Your task to perform on an android device: Open the calendar and show me this week's events? Image 0: 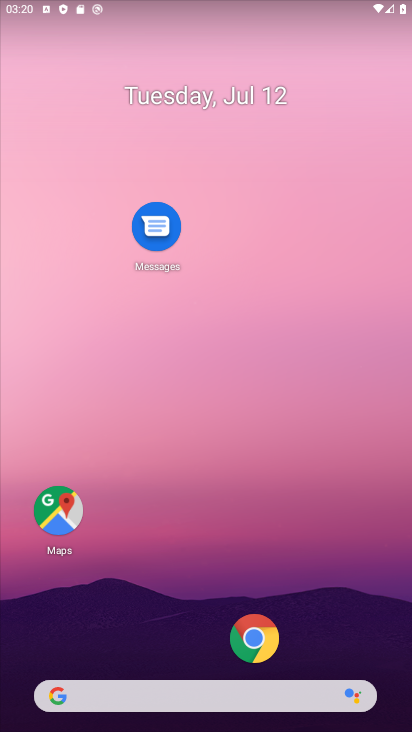
Step 0: click (230, 86)
Your task to perform on an android device: Open the calendar and show me this week's events? Image 1: 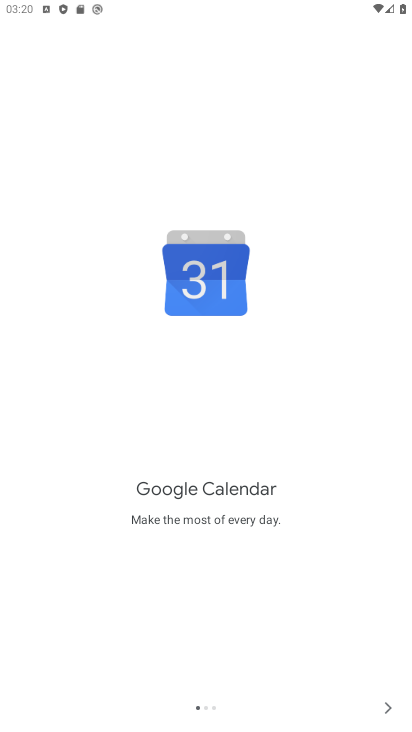
Step 1: click (385, 715)
Your task to perform on an android device: Open the calendar and show me this week's events? Image 2: 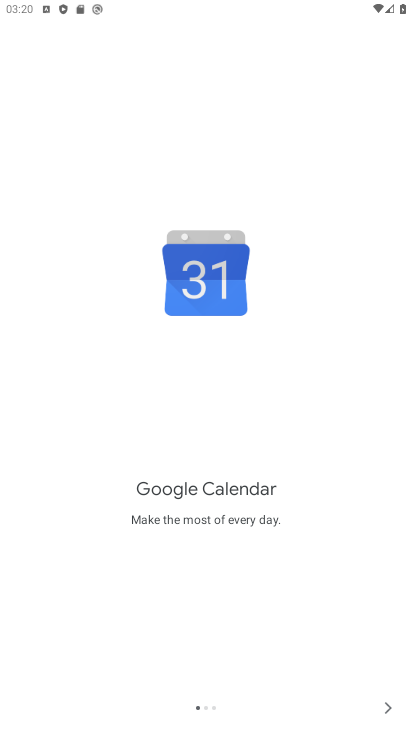
Step 2: click (385, 715)
Your task to perform on an android device: Open the calendar and show me this week's events? Image 3: 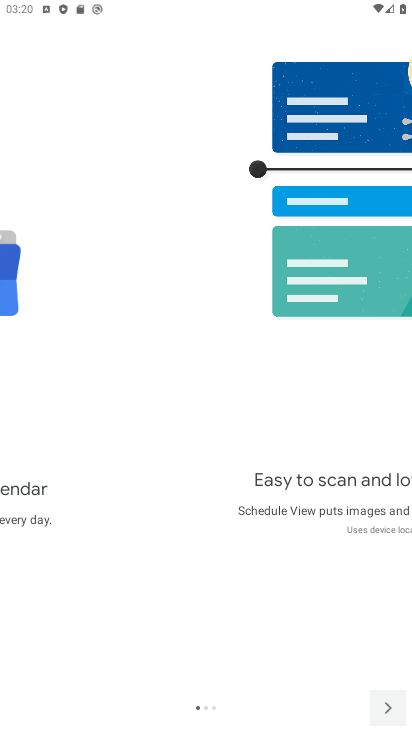
Step 3: click (385, 715)
Your task to perform on an android device: Open the calendar and show me this week's events? Image 4: 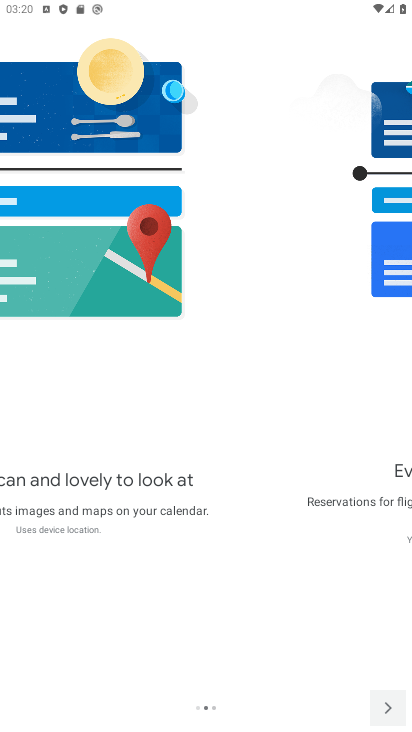
Step 4: click (385, 715)
Your task to perform on an android device: Open the calendar and show me this week's events? Image 5: 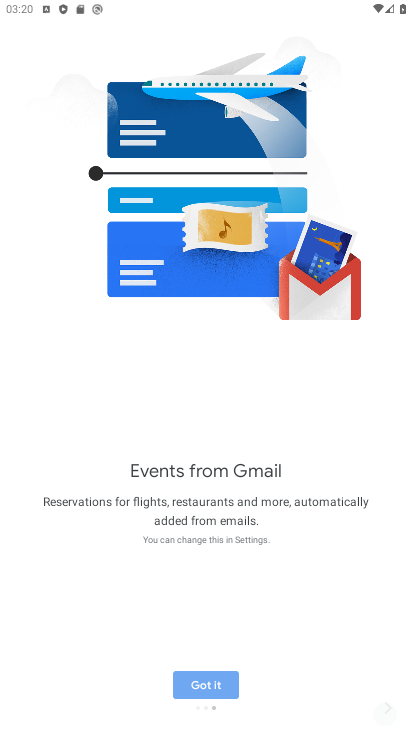
Step 5: click (385, 715)
Your task to perform on an android device: Open the calendar and show me this week's events? Image 6: 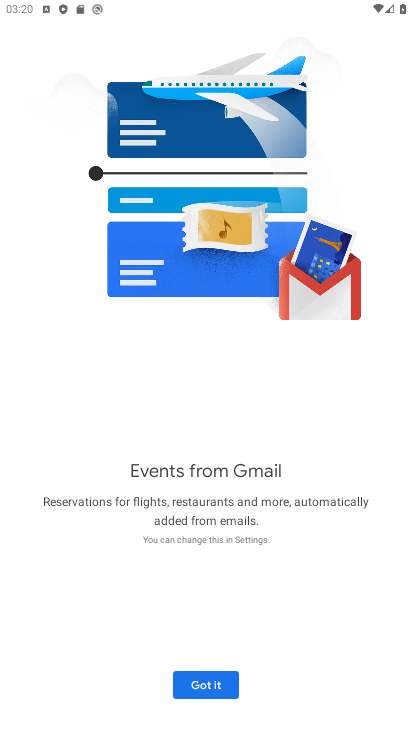
Step 6: click (385, 715)
Your task to perform on an android device: Open the calendar and show me this week's events? Image 7: 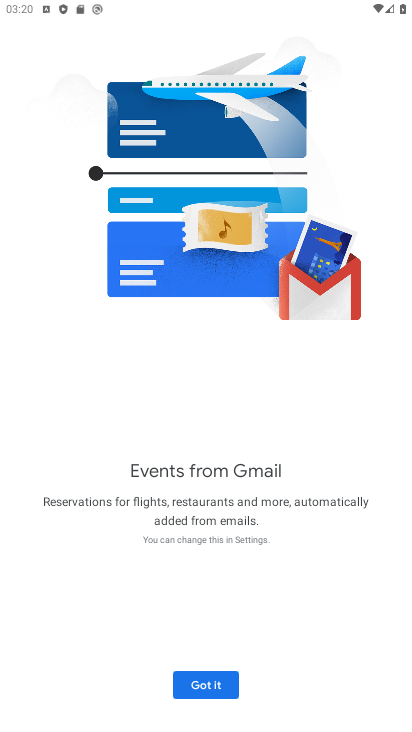
Step 7: click (385, 715)
Your task to perform on an android device: Open the calendar and show me this week's events? Image 8: 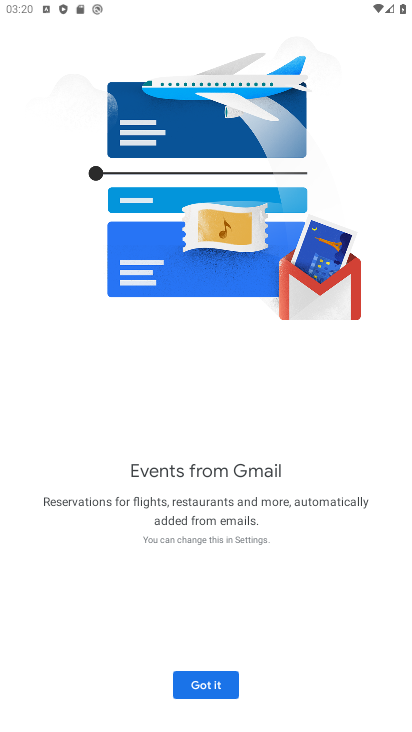
Step 8: click (385, 715)
Your task to perform on an android device: Open the calendar and show me this week's events? Image 9: 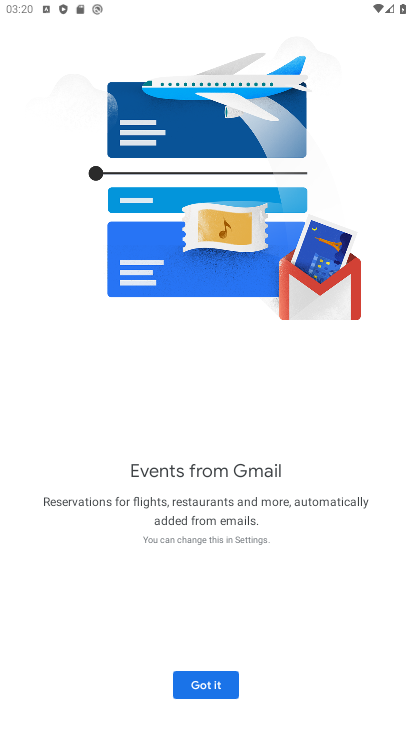
Step 9: click (385, 715)
Your task to perform on an android device: Open the calendar and show me this week's events? Image 10: 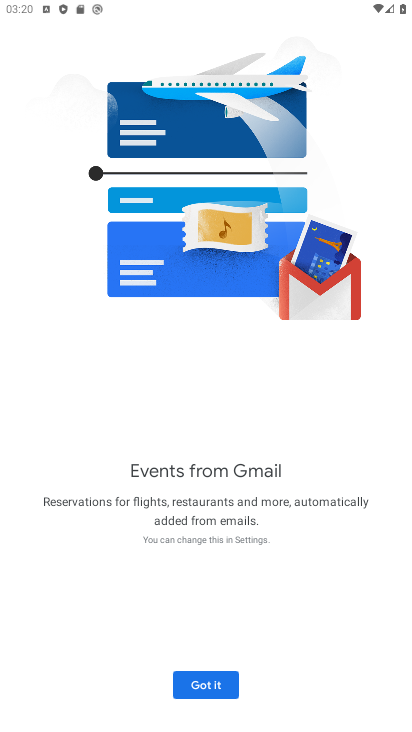
Step 10: click (203, 688)
Your task to perform on an android device: Open the calendar and show me this week's events? Image 11: 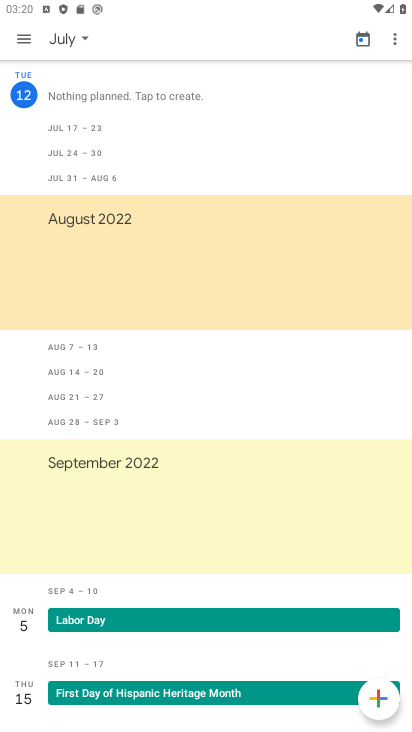
Step 11: click (27, 46)
Your task to perform on an android device: Open the calendar and show me this week's events? Image 12: 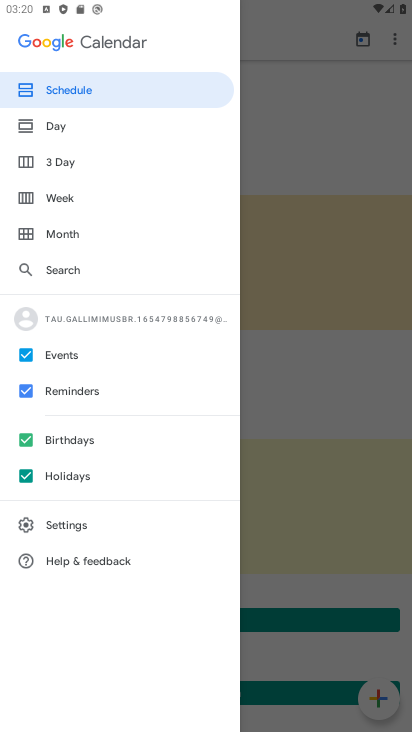
Step 12: click (54, 196)
Your task to perform on an android device: Open the calendar and show me this week's events? Image 13: 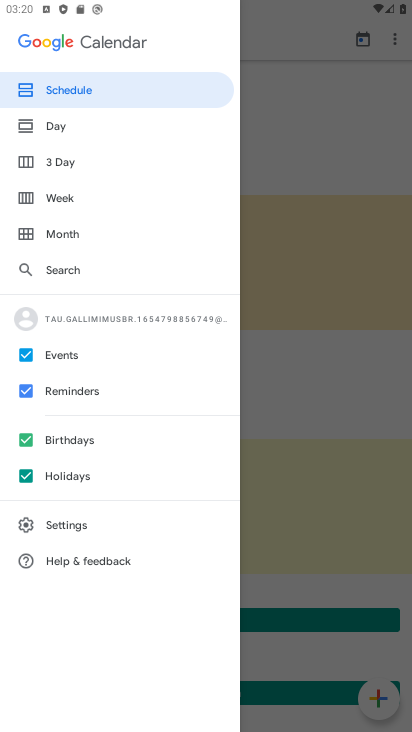
Step 13: click (21, 391)
Your task to perform on an android device: Open the calendar and show me this week's events? Image 14: 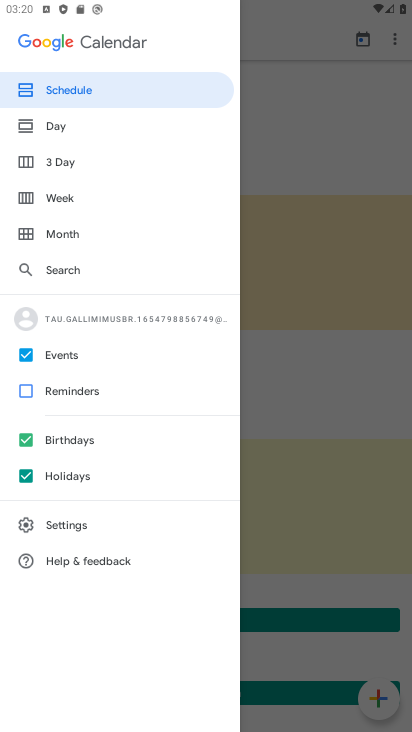
Step 14: click (25, 438)
Your task to perform on an android device: Open the calendar and show me this week's events? Image 15: 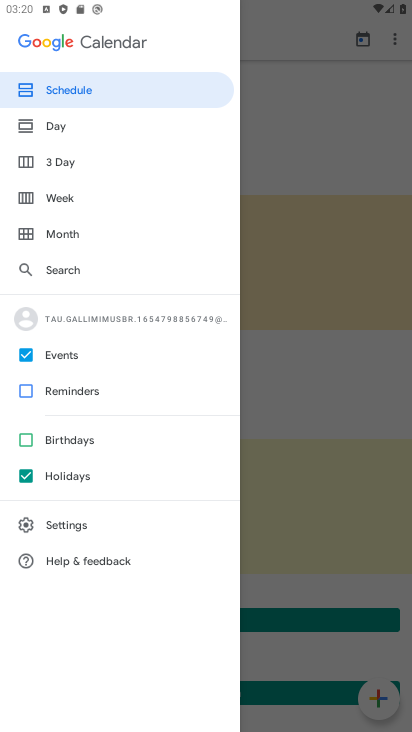
Step 15: click (22, 474)
Your task to perform on an android device: Open the calendar and show me this week's events? Image 16: 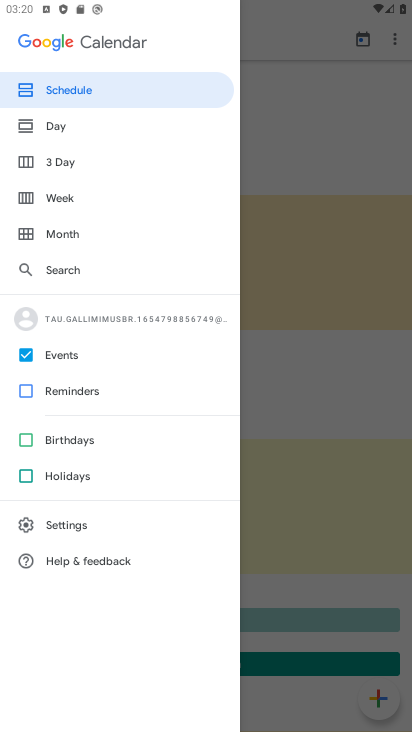
Step 16: click (148, 205)
Your task to perform on an android device: Open the calendar and show me this week's events? Image 17: 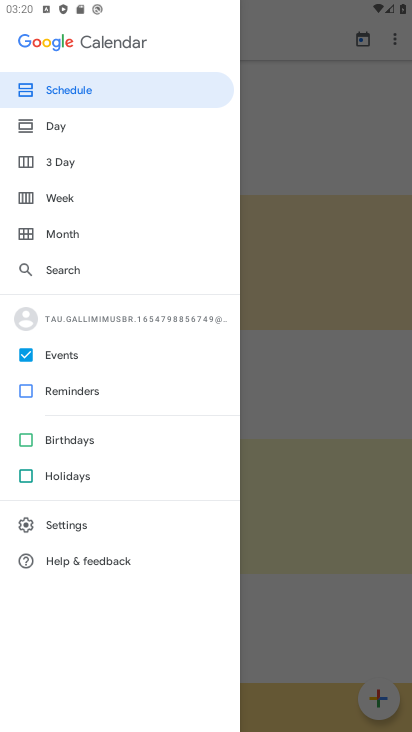
Step 17: click (65, 199)
Your task to perform on an android device: Open the calendar and show me this week's events? Image 18: 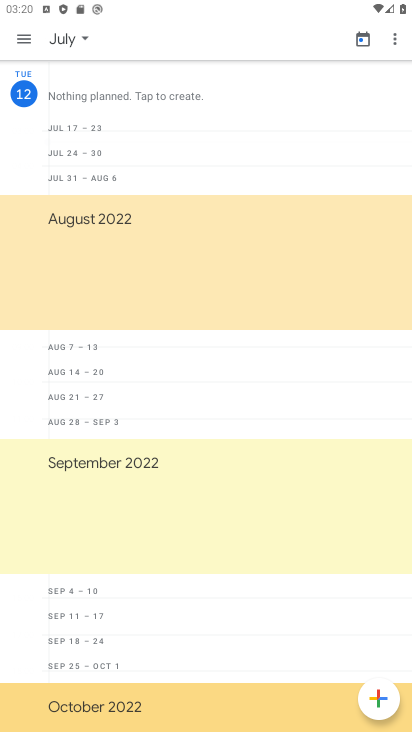
Step 18: click (65, 199)
Your task to perform on an android device: Open the calendar and show me this week's events? Image 19: 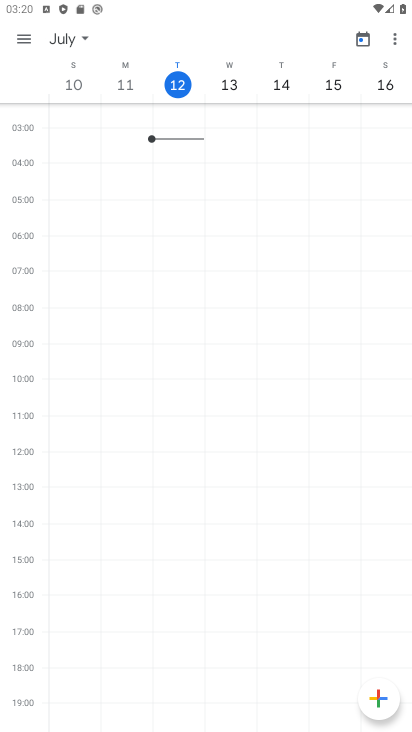
Step 19: task complete